Your task to perform on an android device: Show me popular videos on Youtube Image 0: 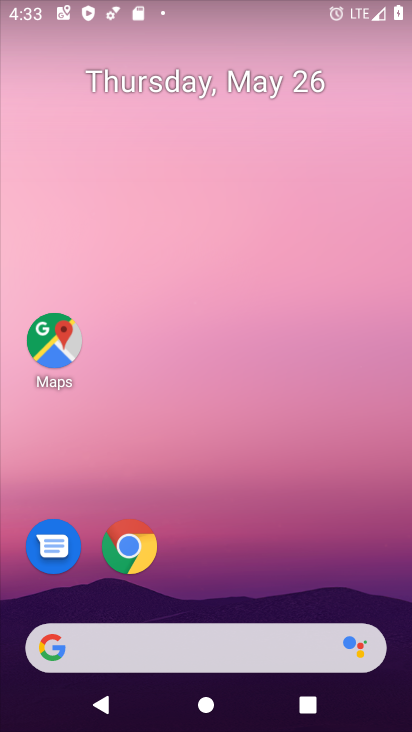
Step 0: drag from (197, 544) to (293, 102)
Your task to perform on an android device: Show me popular videos on Youtube Image 1: 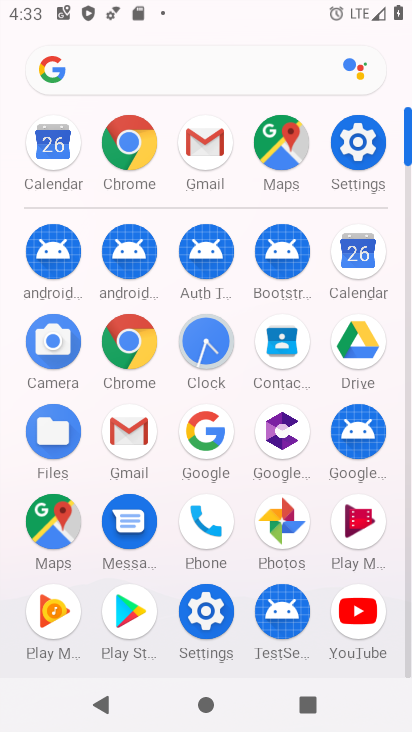
Step 1: drag from (193, 9) to (292, 112)
Your task to perform on an android device: Show me popular videos on Youtube Image 2: 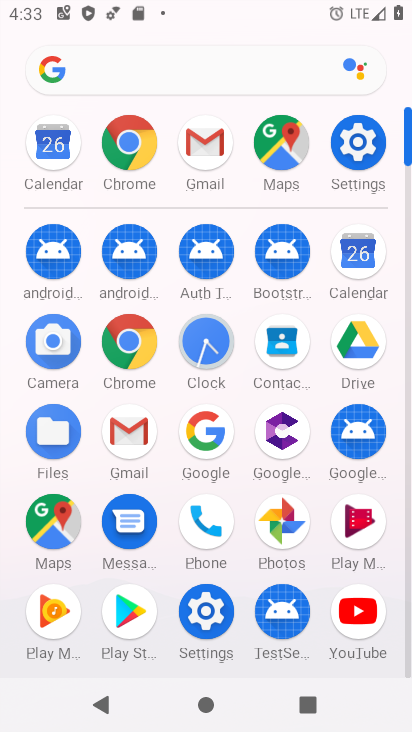
Step 2: click (364, 606)
Your task to perform on an android device: Show me popular videos on Youtube Image 3: 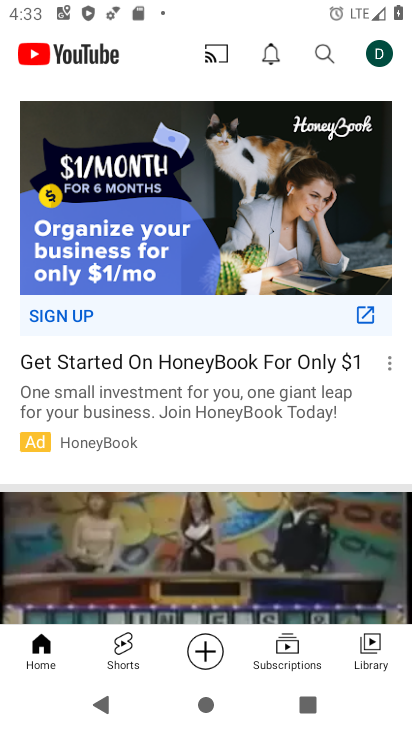
Step 3: drag from (216, 202) to (232, 564)
Your task to perform on an android device: Show me popular videos on Youtube Image 4: 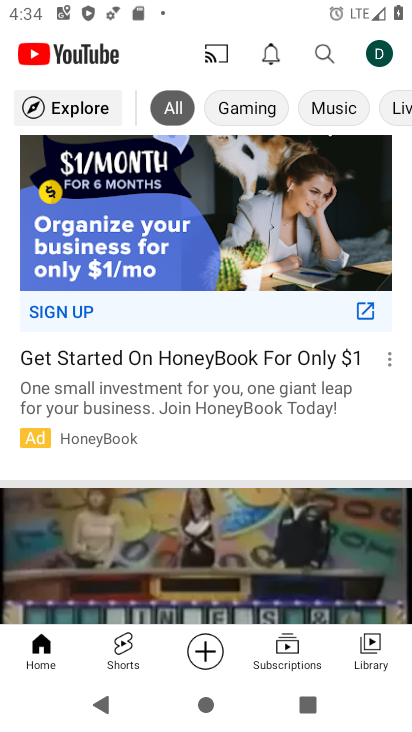
Step 4: click (72, 106)
Your task to perform on an android device: Show me popular videos on Youtube Image 5: 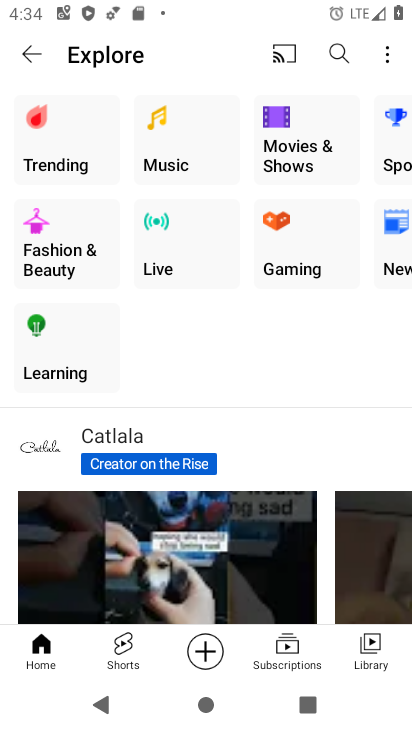
Step 5: drag from (191, 583) to (254, 606)
Your task to perform on an android device: Show me popular videos on Youtube Image 6: 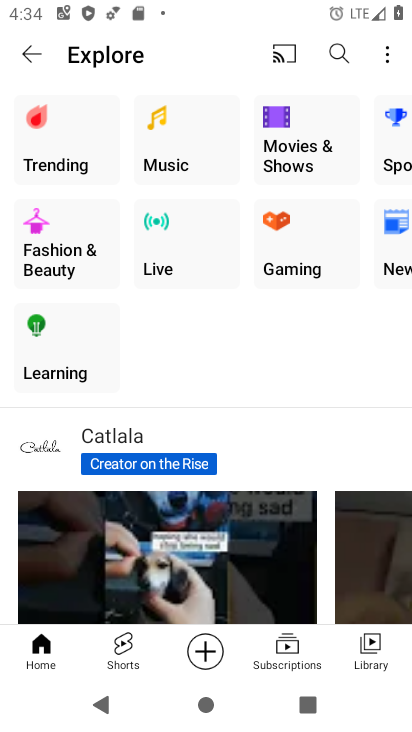
Step 6: drag from (202, 528) to (330, 22)
Your task to perform on an android device: Show me popular videos on Youtube Image 7: 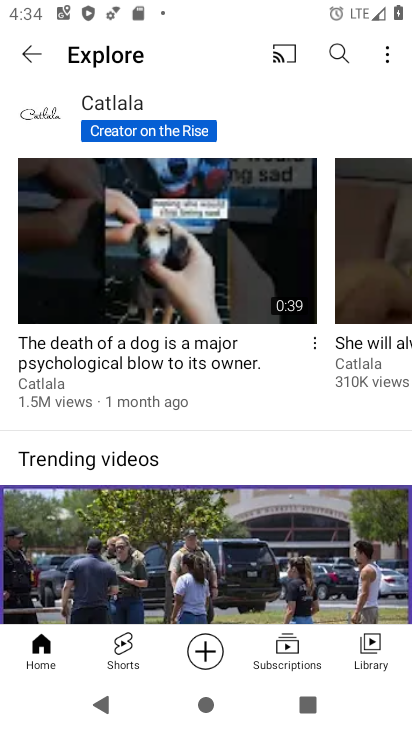
Step 7: drag from (212, 521) to (290, 49)
Your task to perform on an android device: Show me popular videos on Youtube Image 8: 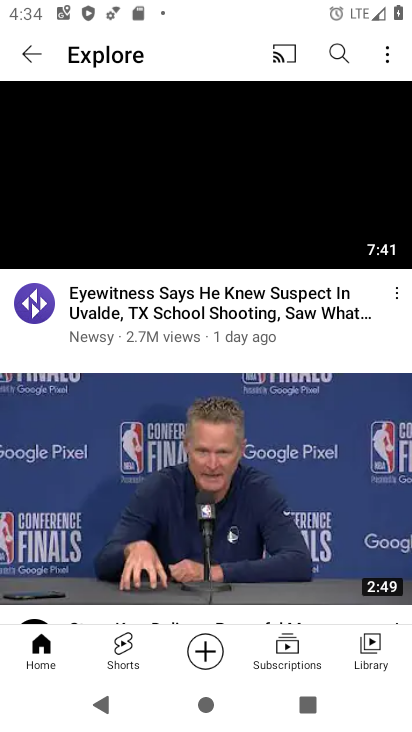
Step 8: drag from (232, 244) to (230, 590)
Your task to perform on an android device: Show me popular videos on Youtube Image 9: 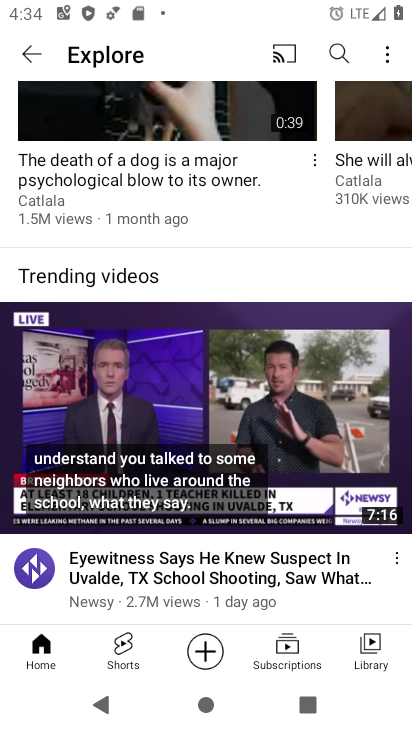
Step 9: drag from (249, 166) to (254, 283)
Your task to perform on an android device: Show me popular videos on Youtube Image 10: 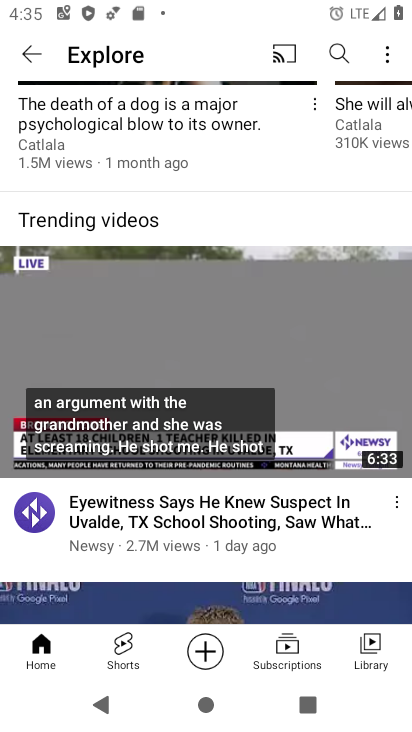
Step 10: drag from (144, 255) to (123, 585)
Your task to perform on an android device: Show me popular videos on Youtube Image 11: 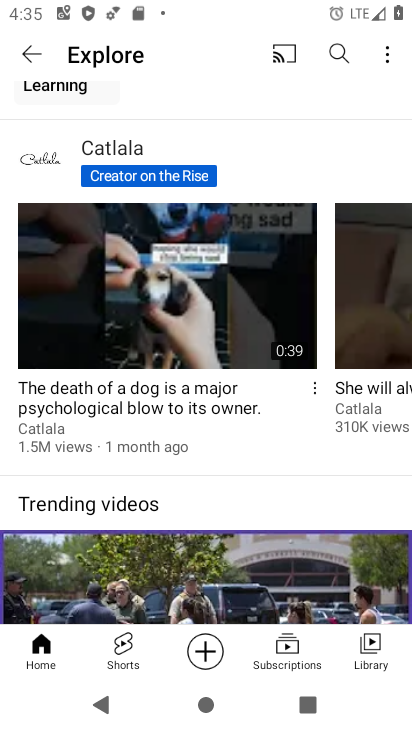
Step 11: drag from (162, 281) to (140, 703)
Your task to perform on an android device: Show me popular videos on Youtube Image 12: 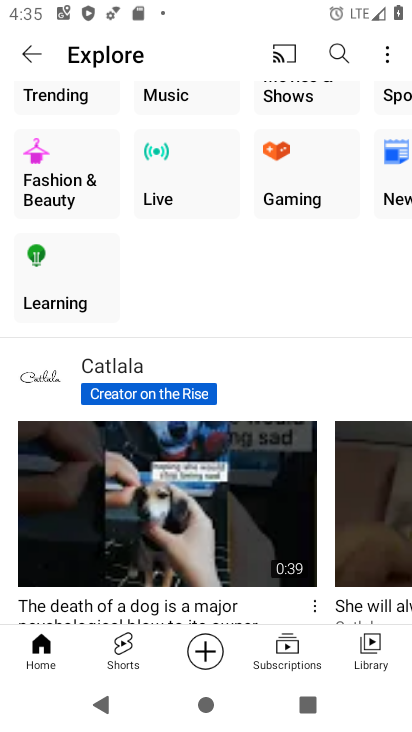
Step 12: drag from (176, 291) to (176, 552)
Your task to perform on an android device: Show me popular videos on Youtube Image 13: 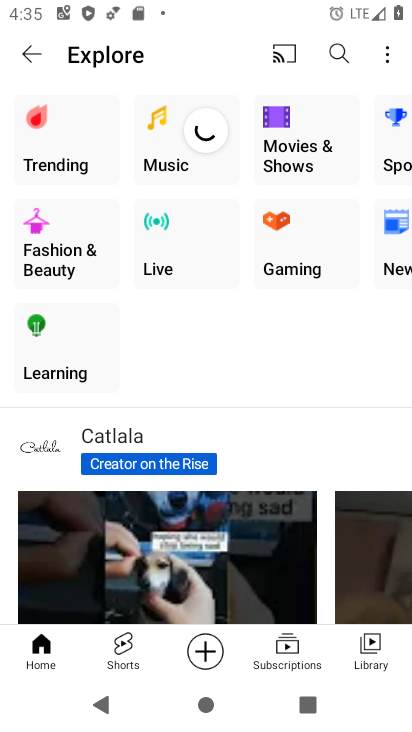
Step 13: click (62, 134)
Your task to perform on an android device: Show me popular videos on Youtube Image 14: 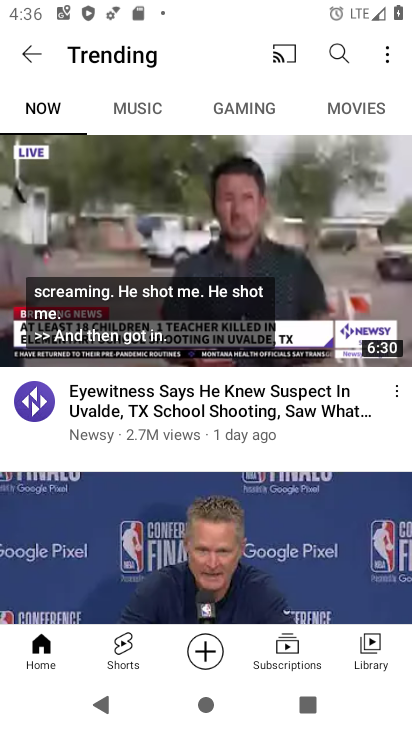
Step 14: task complete